Your task to perform on an android device: change text size in settings app Image 0: 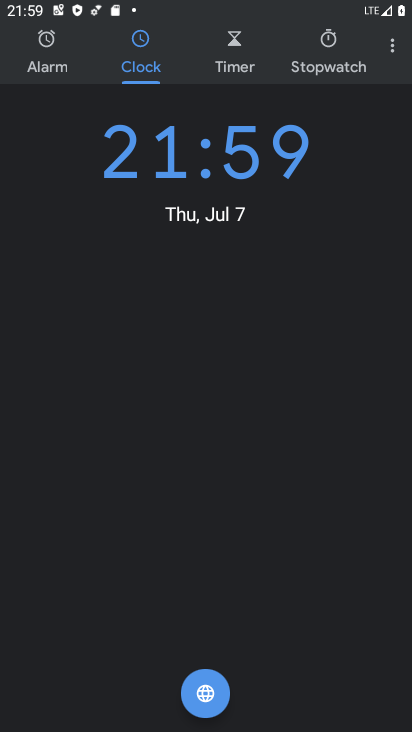
Step 0: drag from (225, 630) to (323, 68)
Your task to perform on an android device: change text size in settings app Image 1: 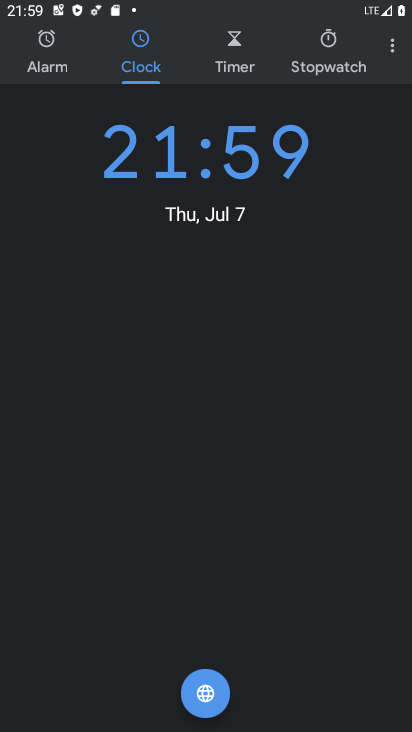
Step 1: press home button
Your task to perform on an android device: change text size in settings app Image 2: 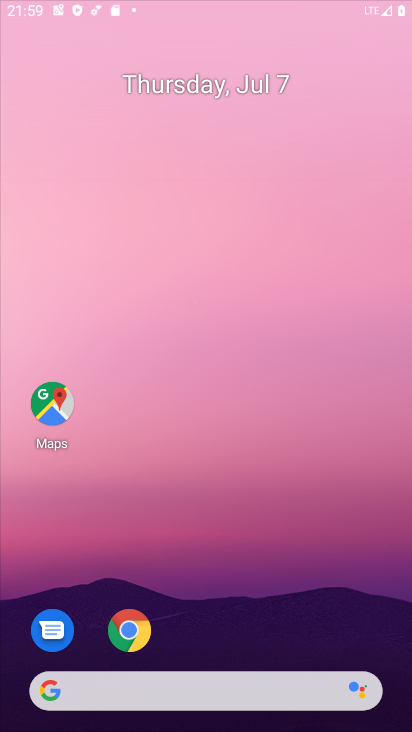
Step 2: drag from (238, 585) to (328, 133)
Your task to perform on an android device: change text size in settings app Image 3: 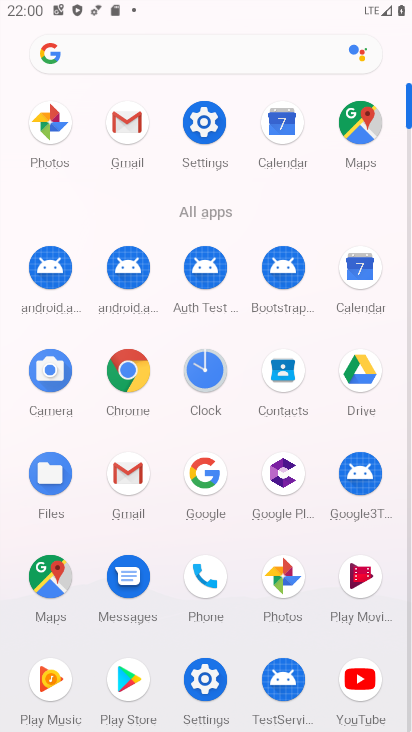
Step 3: click (199, 119)
Your task to perform on an android device: change text size in settings app Image 4: 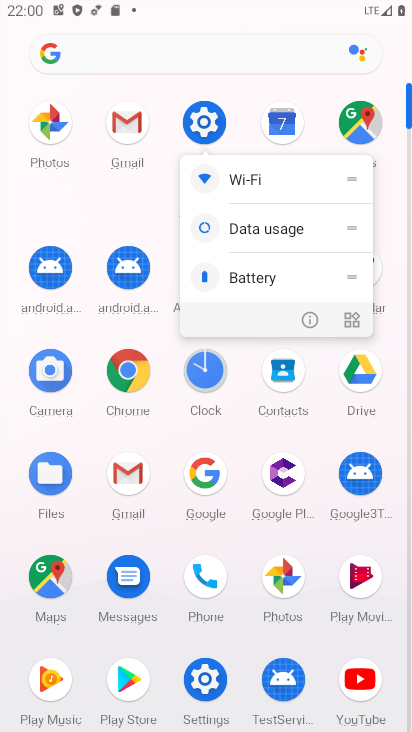
Step 4: click (313, 313)
Your task to perform on an android device: change text size in settings app Image 5: 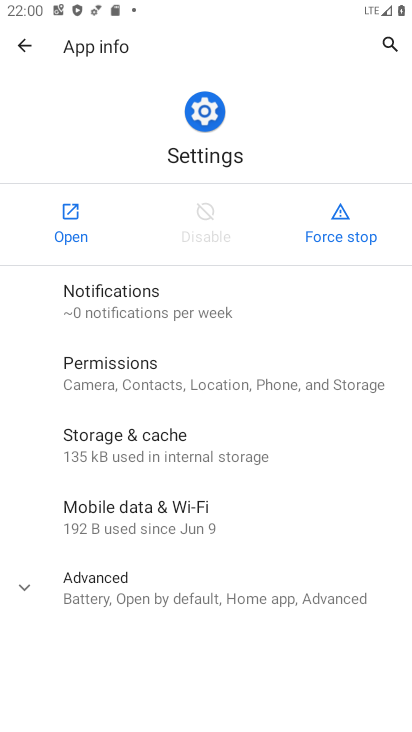
Step 5: click (60, 206)
Your task to perform on an android device: change text size in settings app Image 6: 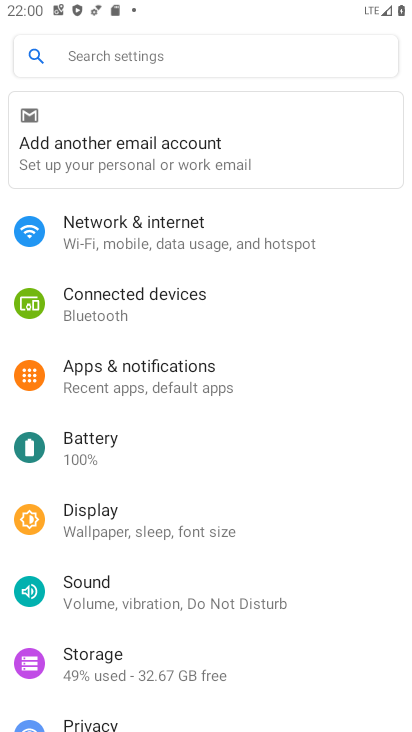
Step 6: click (120, 520)
Your task to perform on an android device: change text size in settings app Image 7: 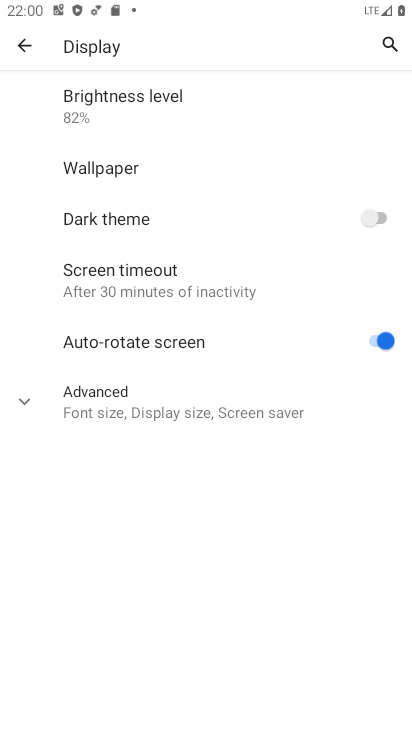
Step 7: click (137, 403)
Your task to perform on an android device: change text size in settings app Image 8: 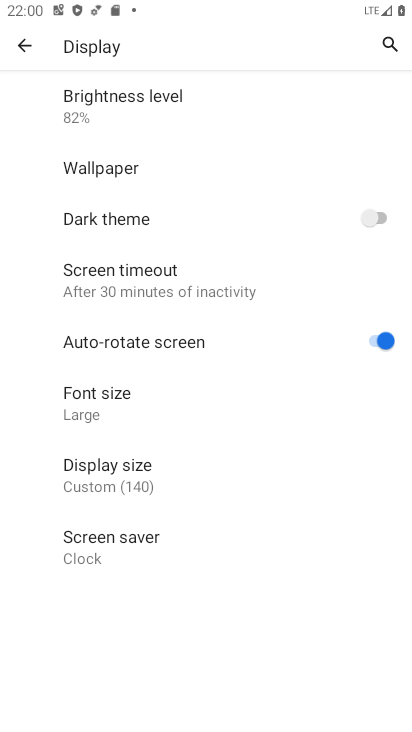
Step 8: click (110, 402)
Your task to perform on an android device: change text size in settings app Image 9: 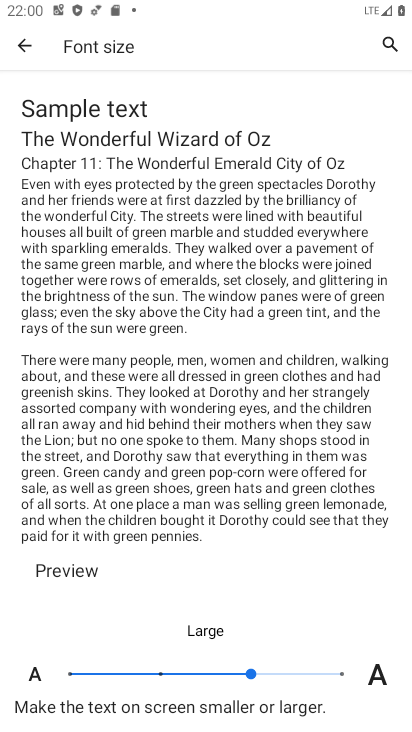
Step 9: drag from (171, 543) to (238, 66)
Your task to perform on an android device: change text size in settings app Image 10: 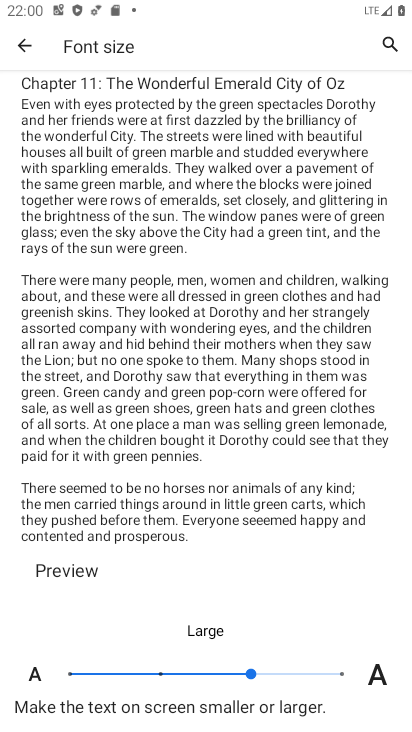
Step 10: click (324, 669)
Your task to perform on an android device: change text size in settings app Image 11: 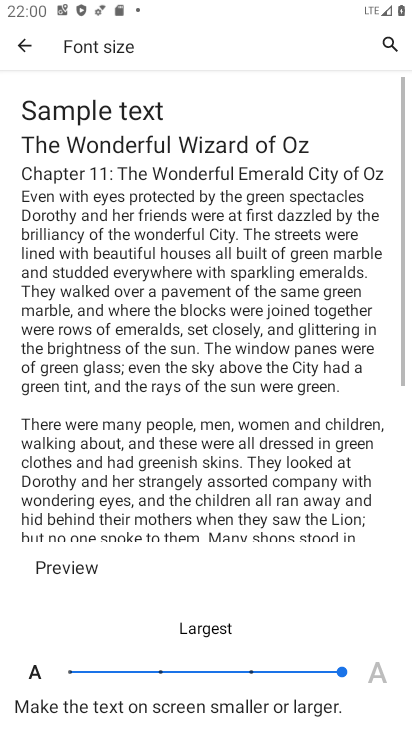
Step 11: task complete